Your task to perform on an android device: turn off location Image 0: 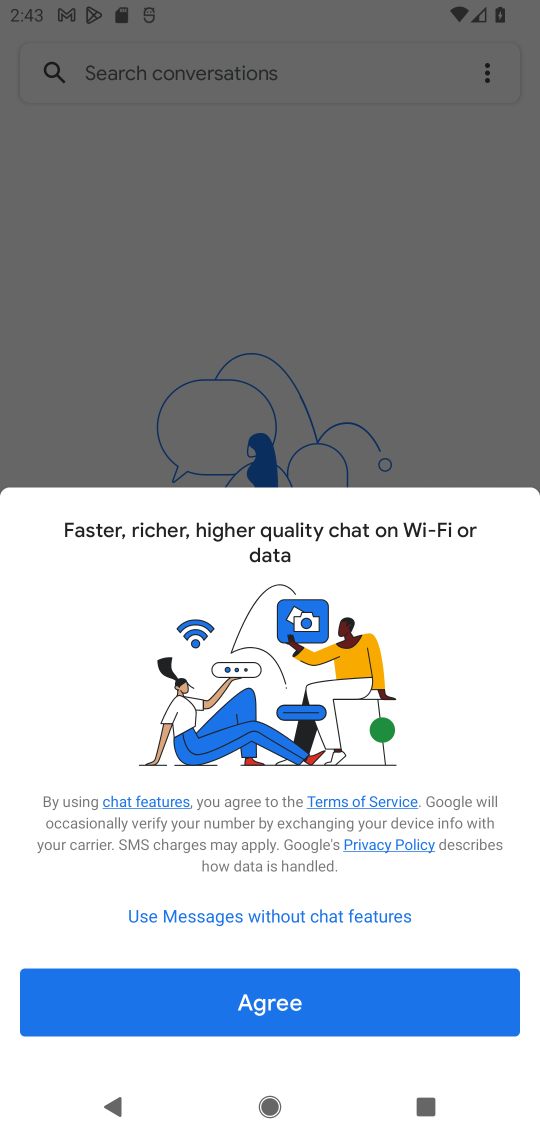
Step 0: press home button
Your task to perform on an android device: turn off location Image 1: 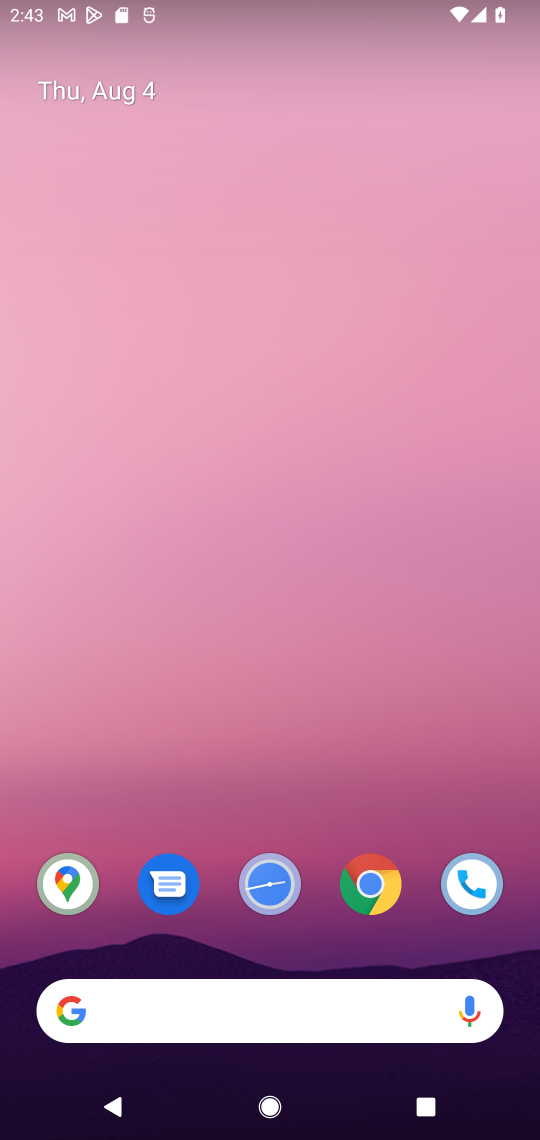
Step 1: drag from (193, 971) to (263, 228)
Your task to perform on an android device: turn off location Image 2: 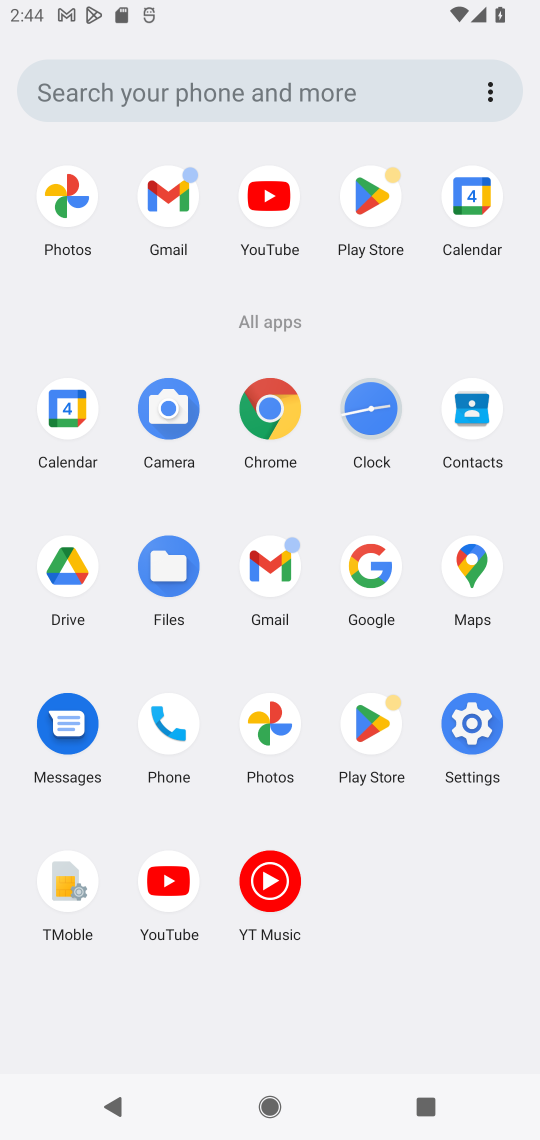
Step 2: click (452, 724)
Your task to perform on an android device: turn off location Image 3: 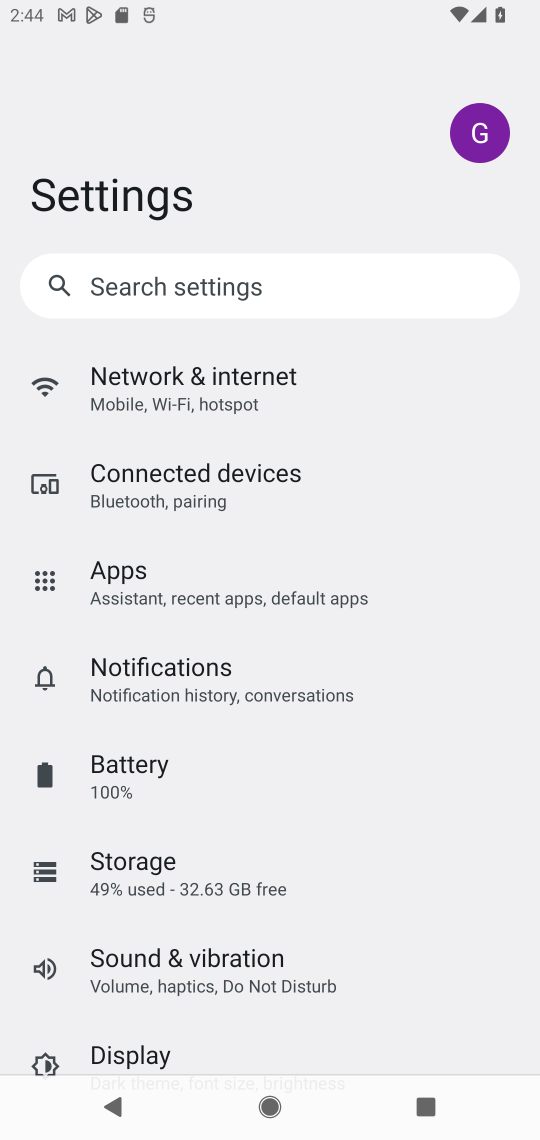
Step 3: drag from (175, 1034) to (199, 661)
Your task to perform on an android device: turn off location Image 4: 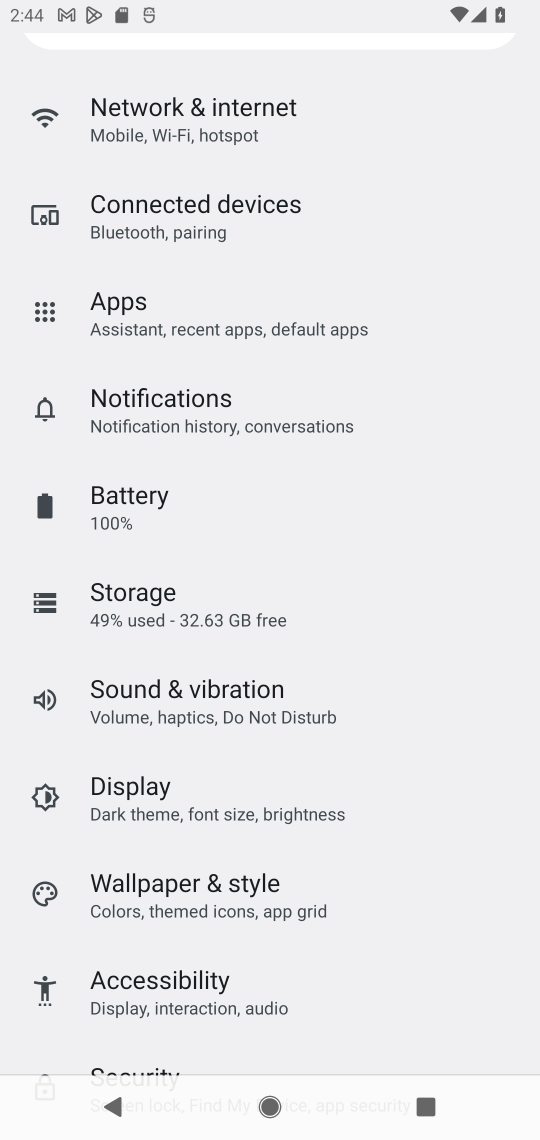
Step 4: drag from (267, 977) to (310, 546)
Your task to perform on an android device: turn off location Image 5: 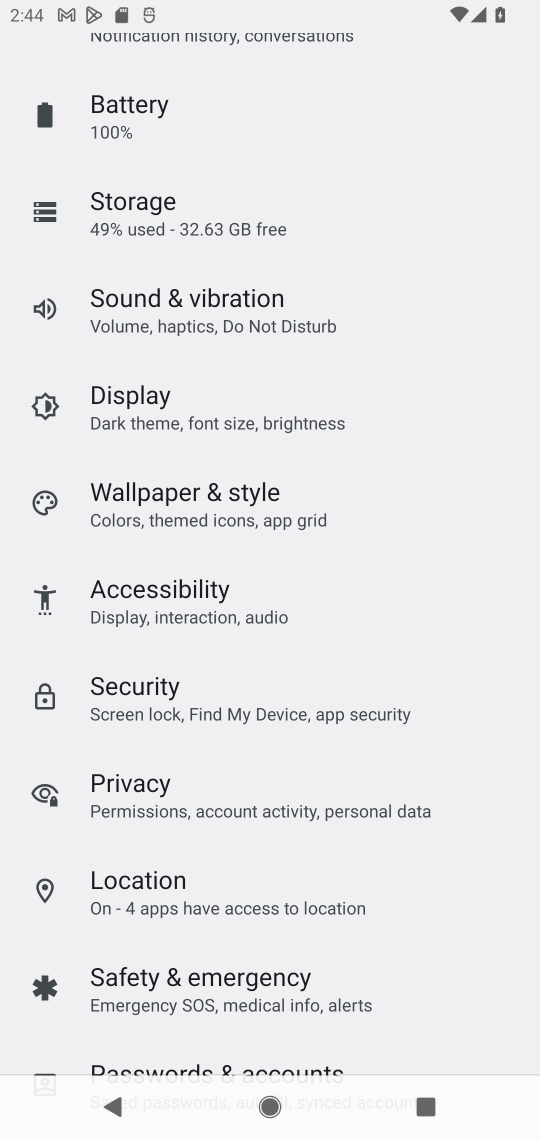
Step 5: click (334, 888)
Your task to perform on an android device: turn off location Image 6: 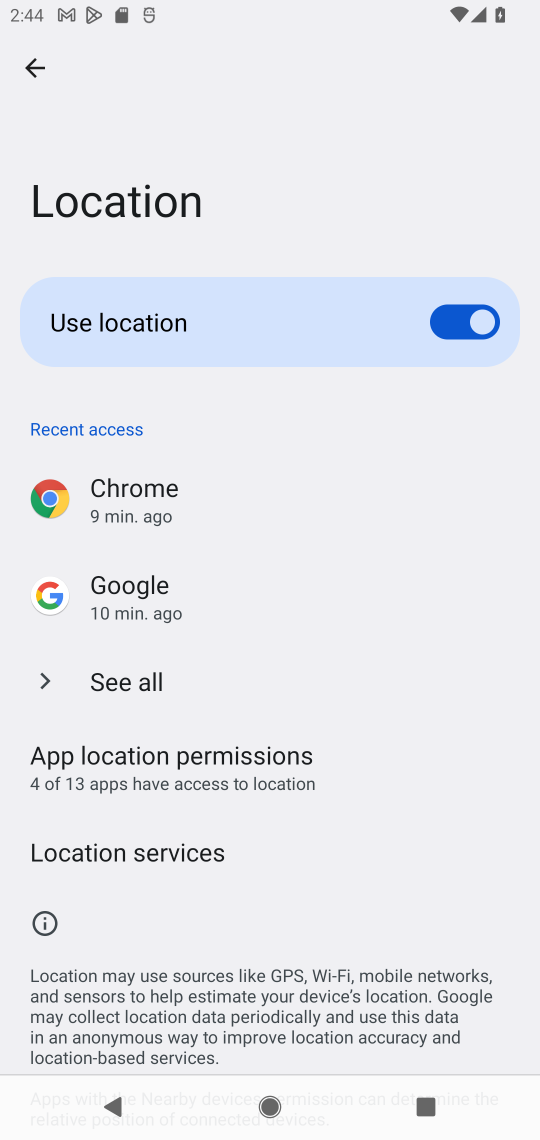
Step 6: task complete